Your task to perform on an android device: delete location history Image 0: 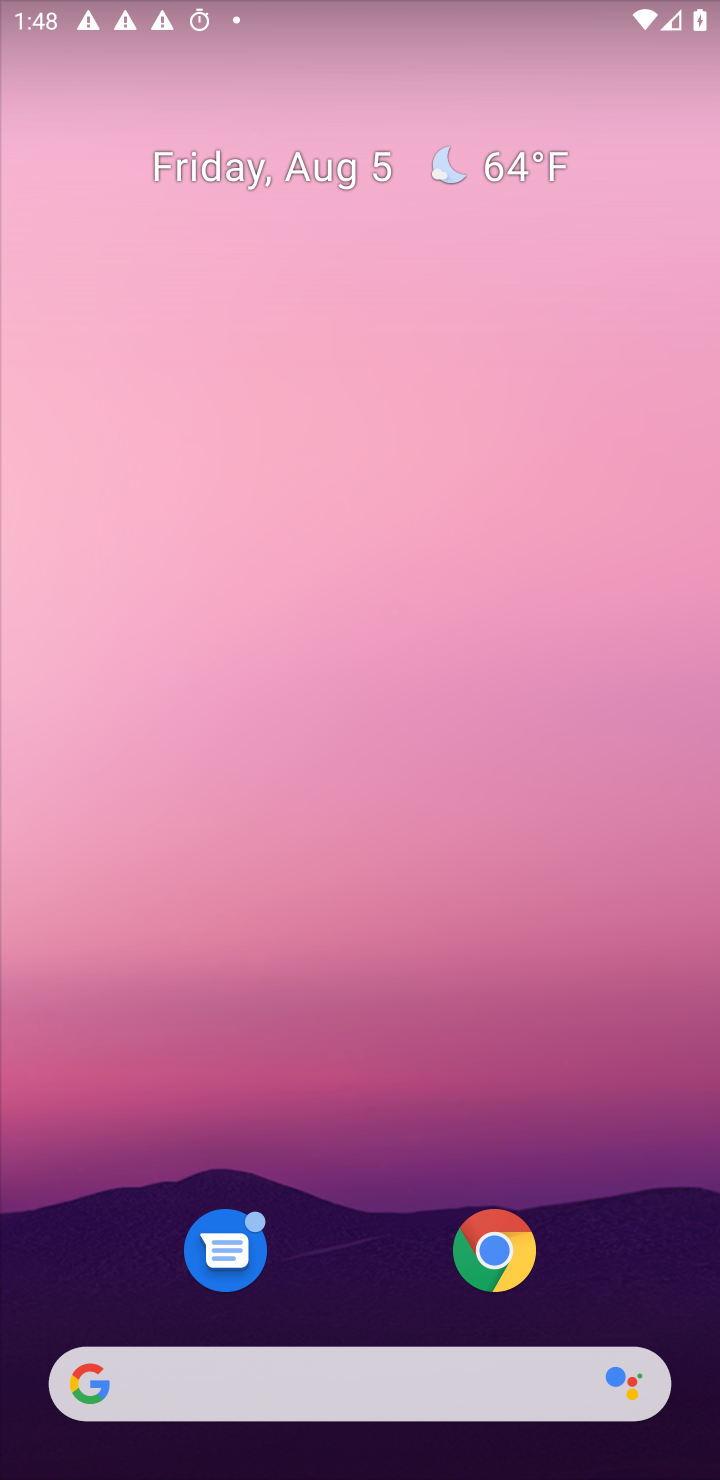
Step 0: click (347, 443)
Your task to perform on an android device: delete location history Image 1: 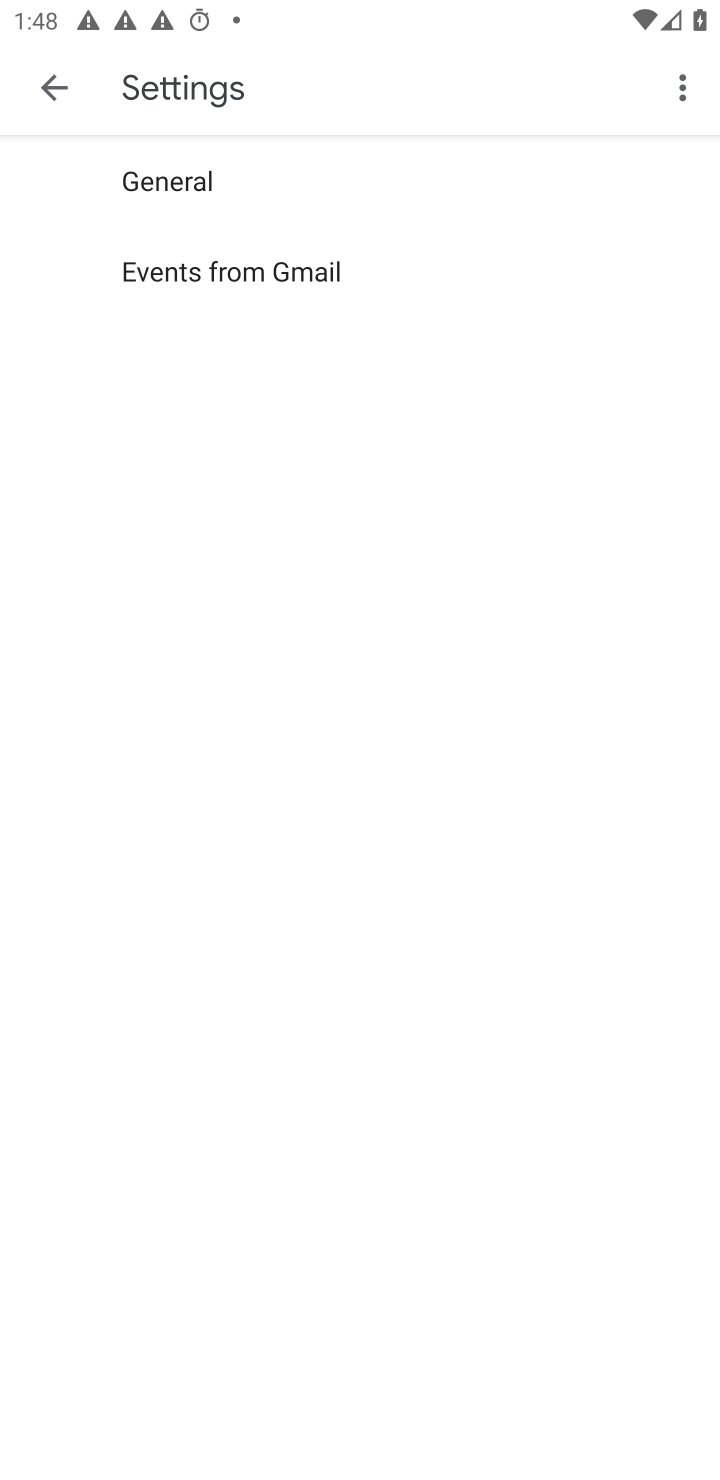
Step 1: click (435, 420)
Your task to perform on an android device: delete location history Image 2: 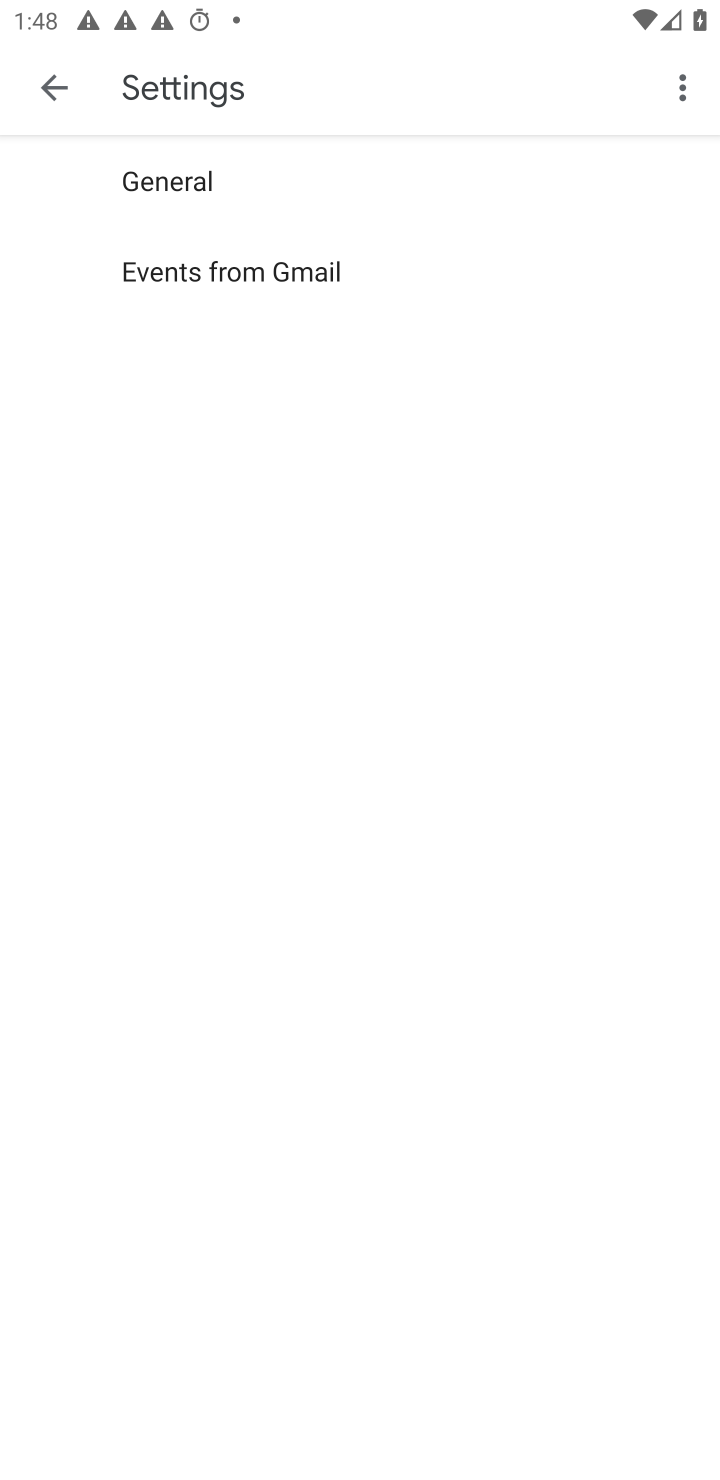
Step 2: press home button
Your task to perform on an android device: delete location history Image 3: 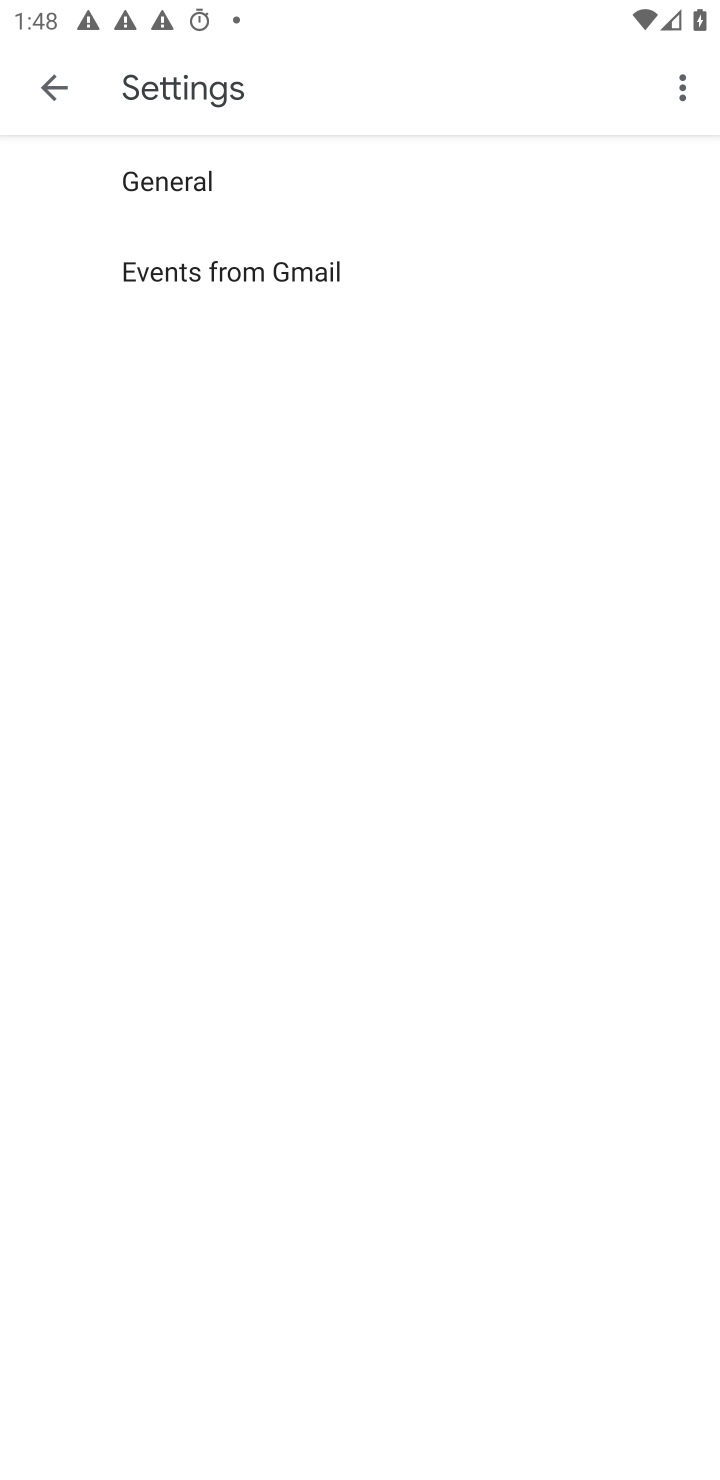
Step 3: press home button
Your task to perform on an android device: delete location history Image 4: 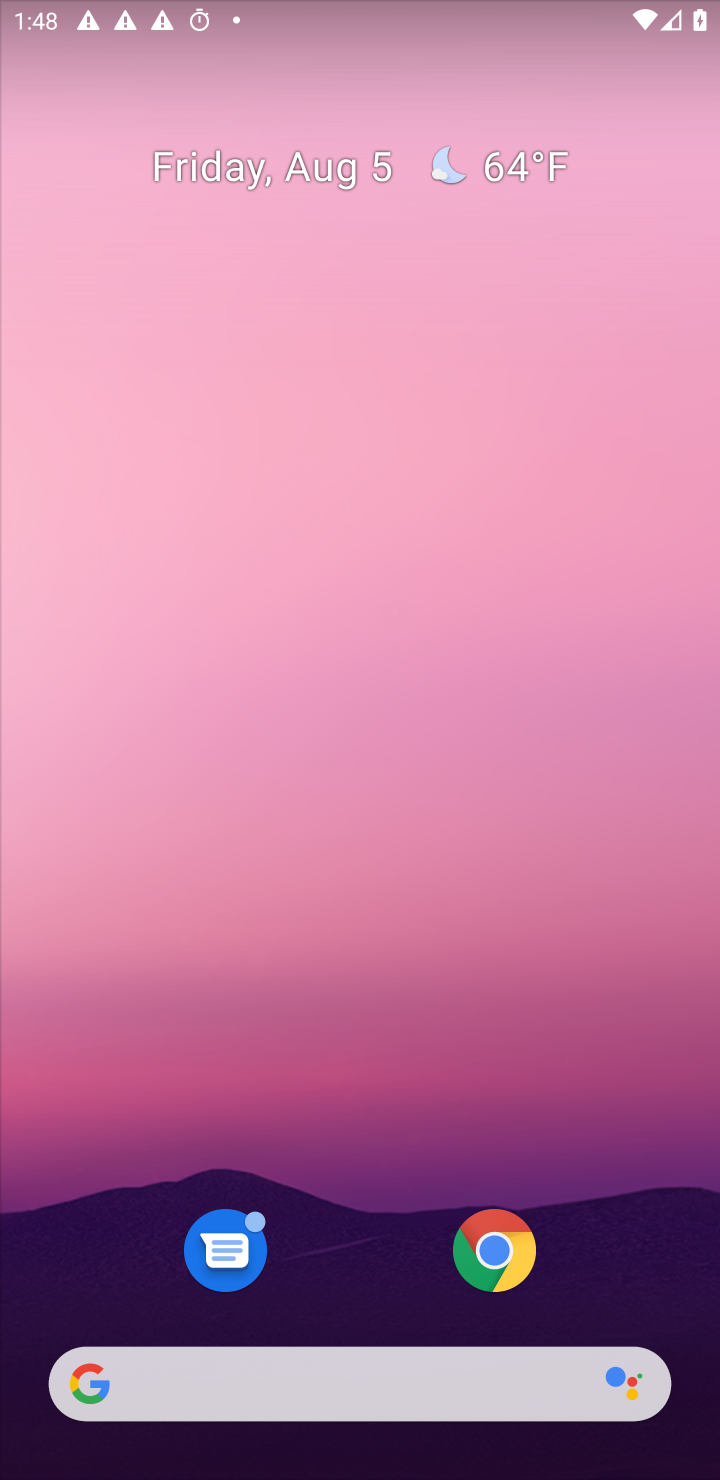
Step 4: drag from (345, 1202) to (445, 527)
Your task to perform on an android device: delete location history Image 5: 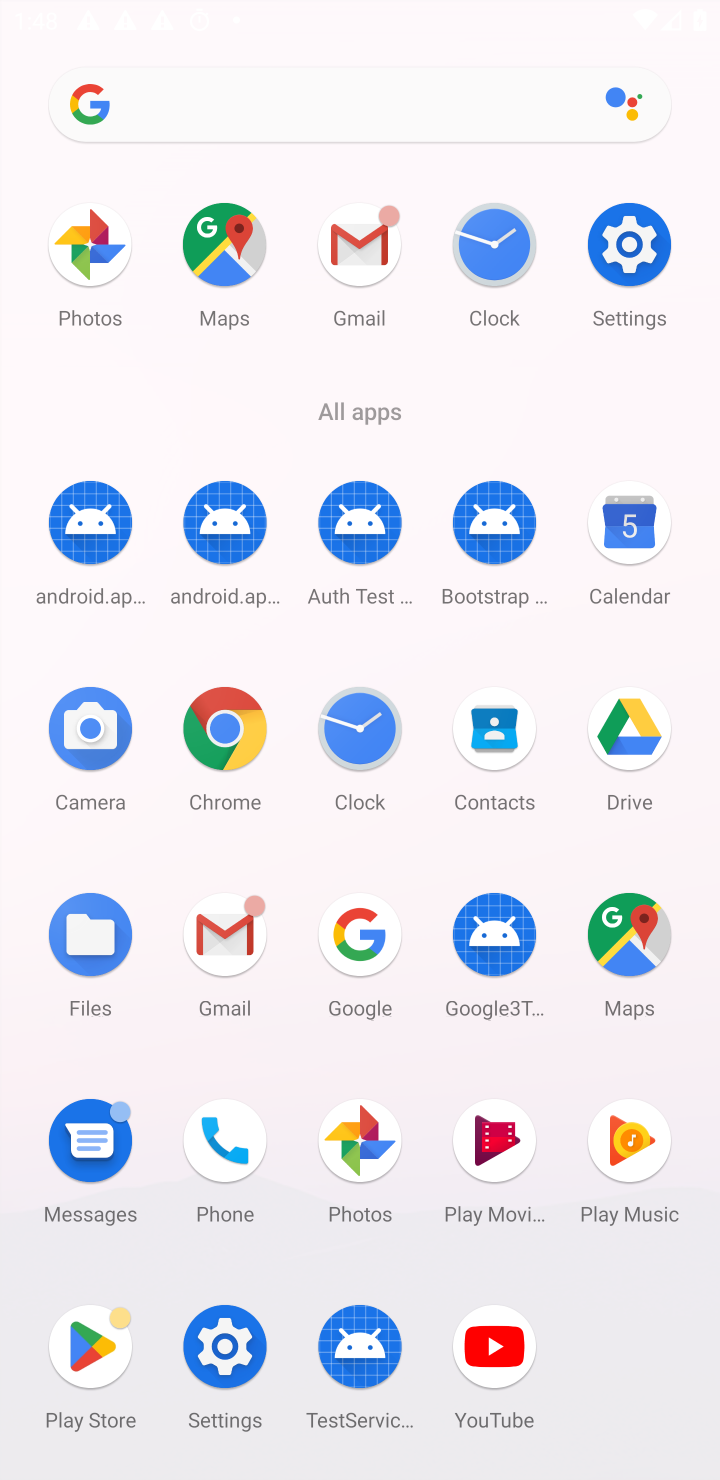
Step 5: click (626, 217)
Your task to perform on an android device: delete location history Image 6: 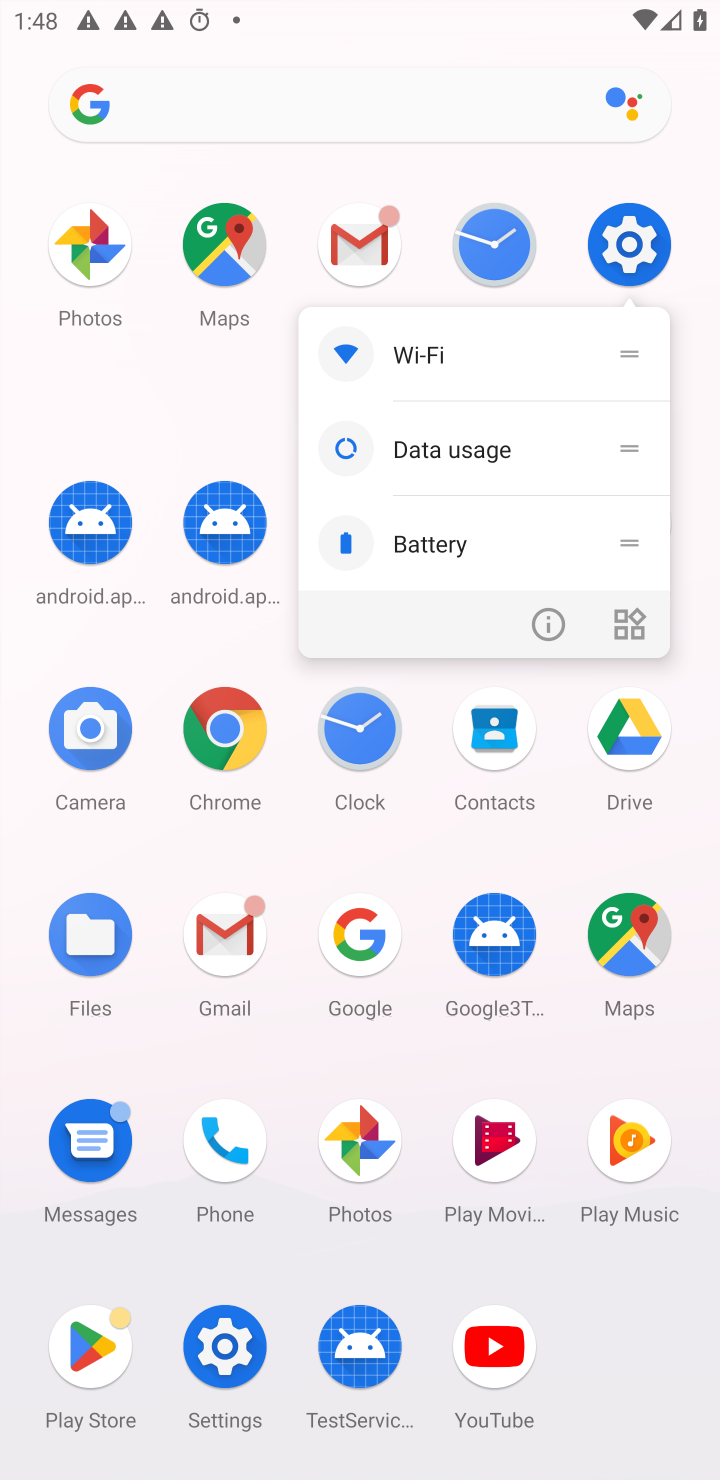
Step 6: click (542, 625)
Your task to perform on an android device: delete location history Image 7: 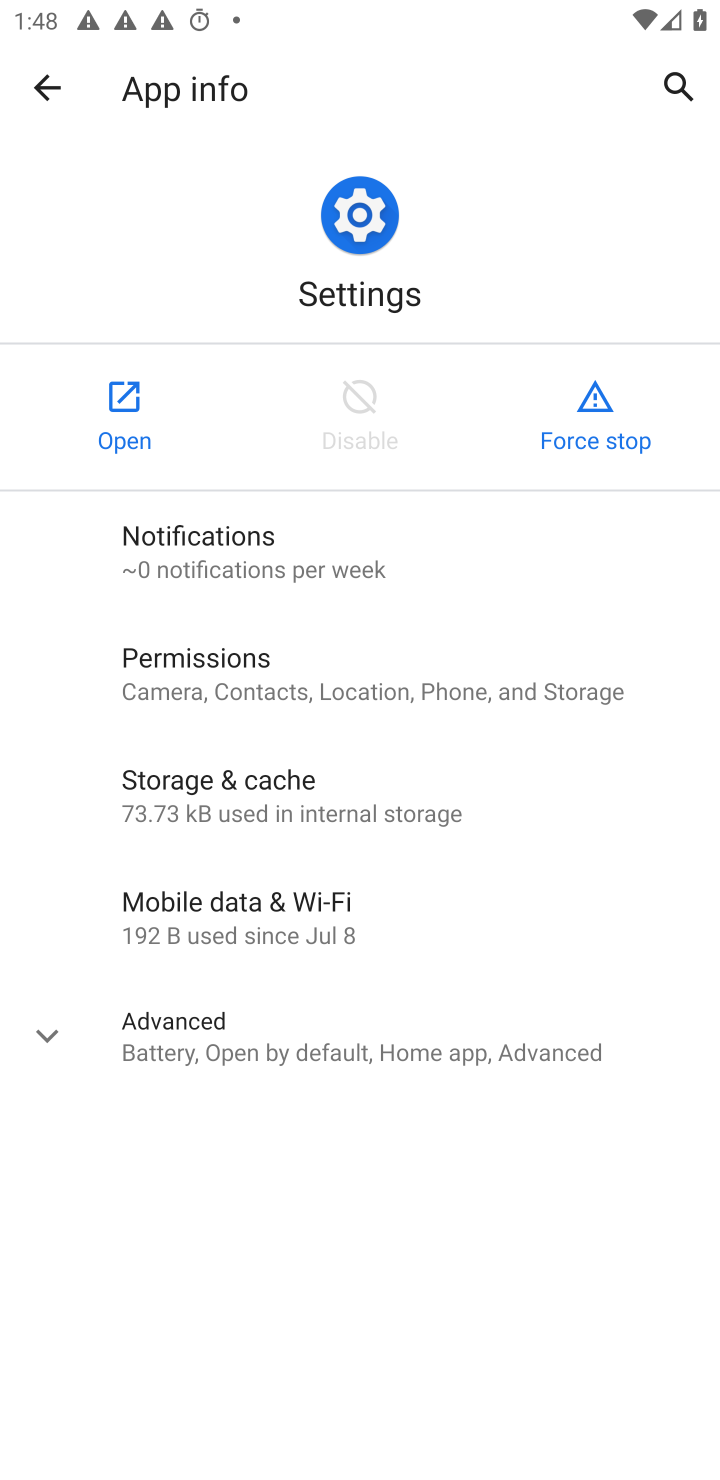
Step 7: click (104, 427)
Your task to perform on an android device: delete location history Image 8: 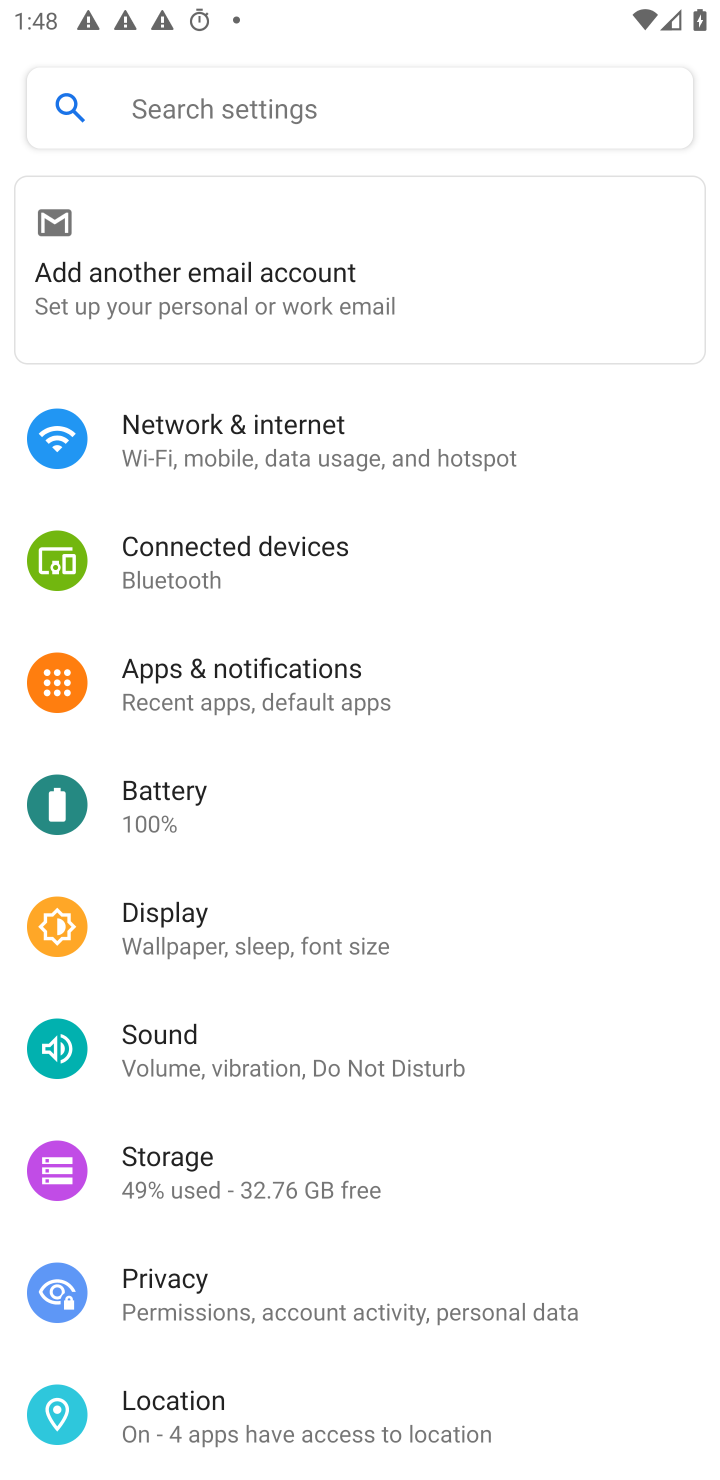
Step 8: click (227, 1401)
Your task to perform on an android device: delete location history Image 9: 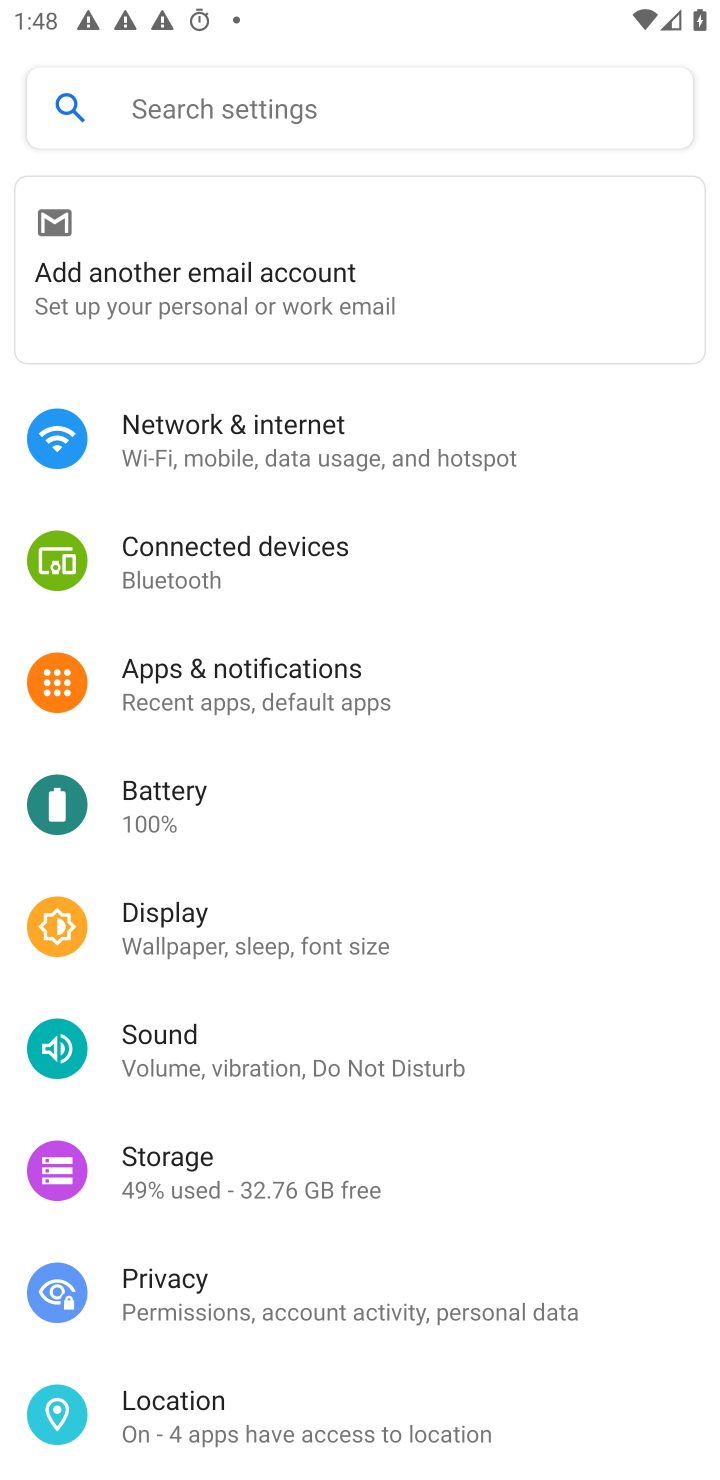
Step 9: drag from (234, 1344) to (426, 539)
Your task to perform on an android device: delete location history Image 10: 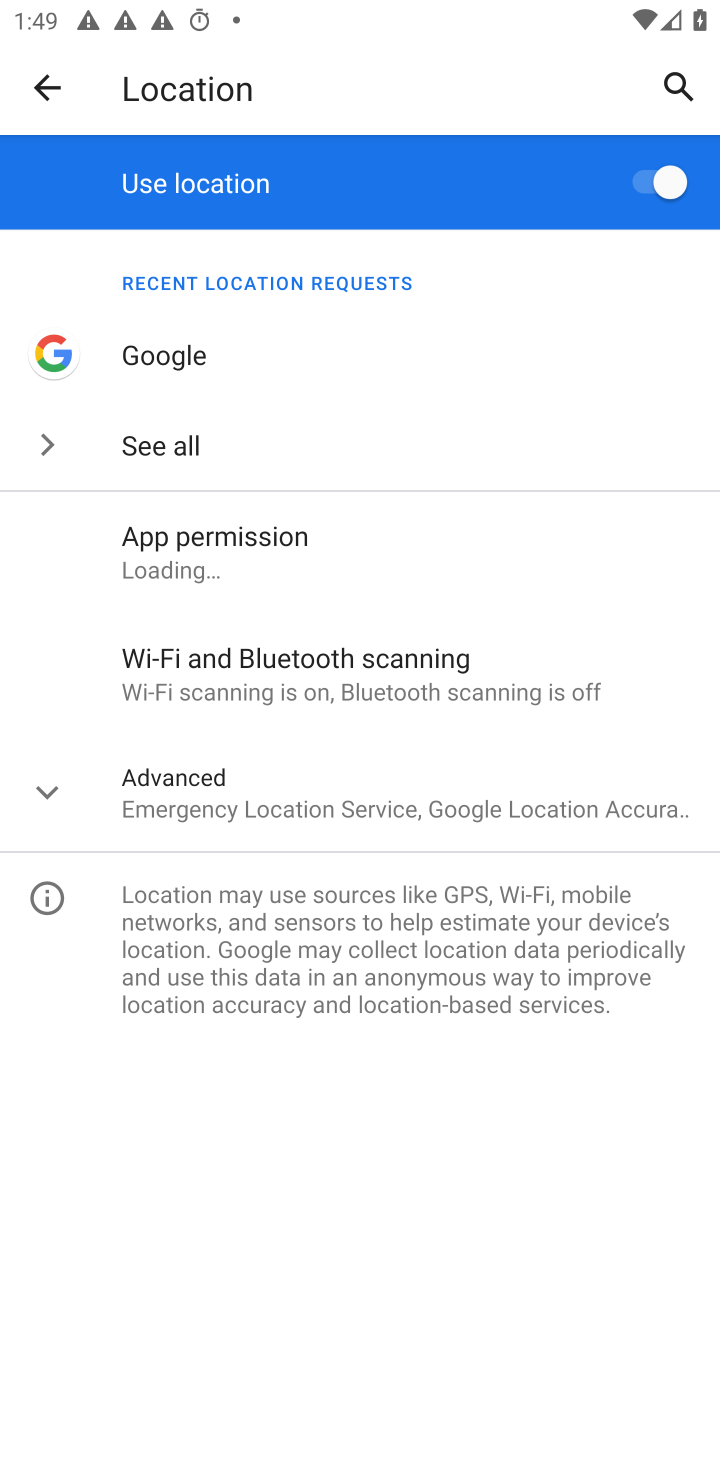
Step 10: click (203, 811)
Your task to perform on an android device: delete location history Image 11: 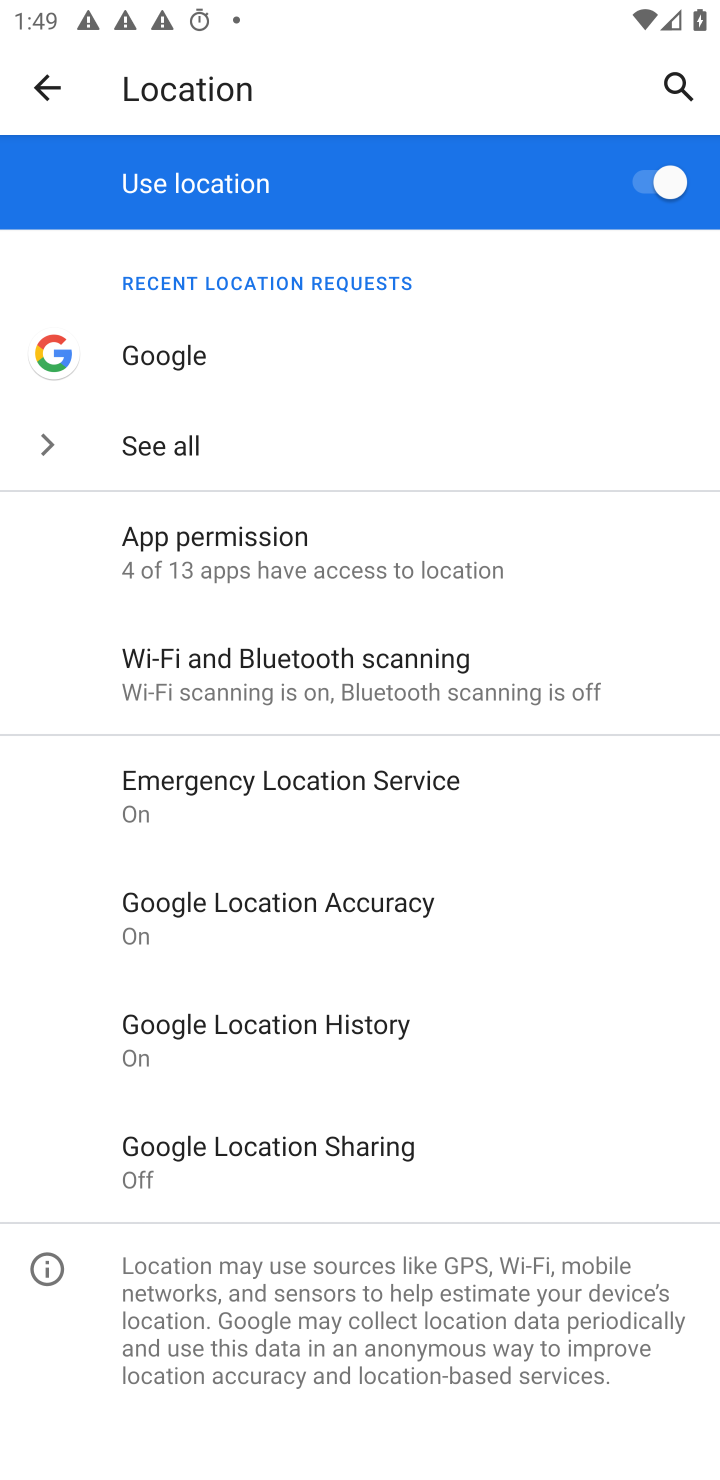
Step 11: click (305, 1021)
Your task to perform on an android device: delete location history Image 12: 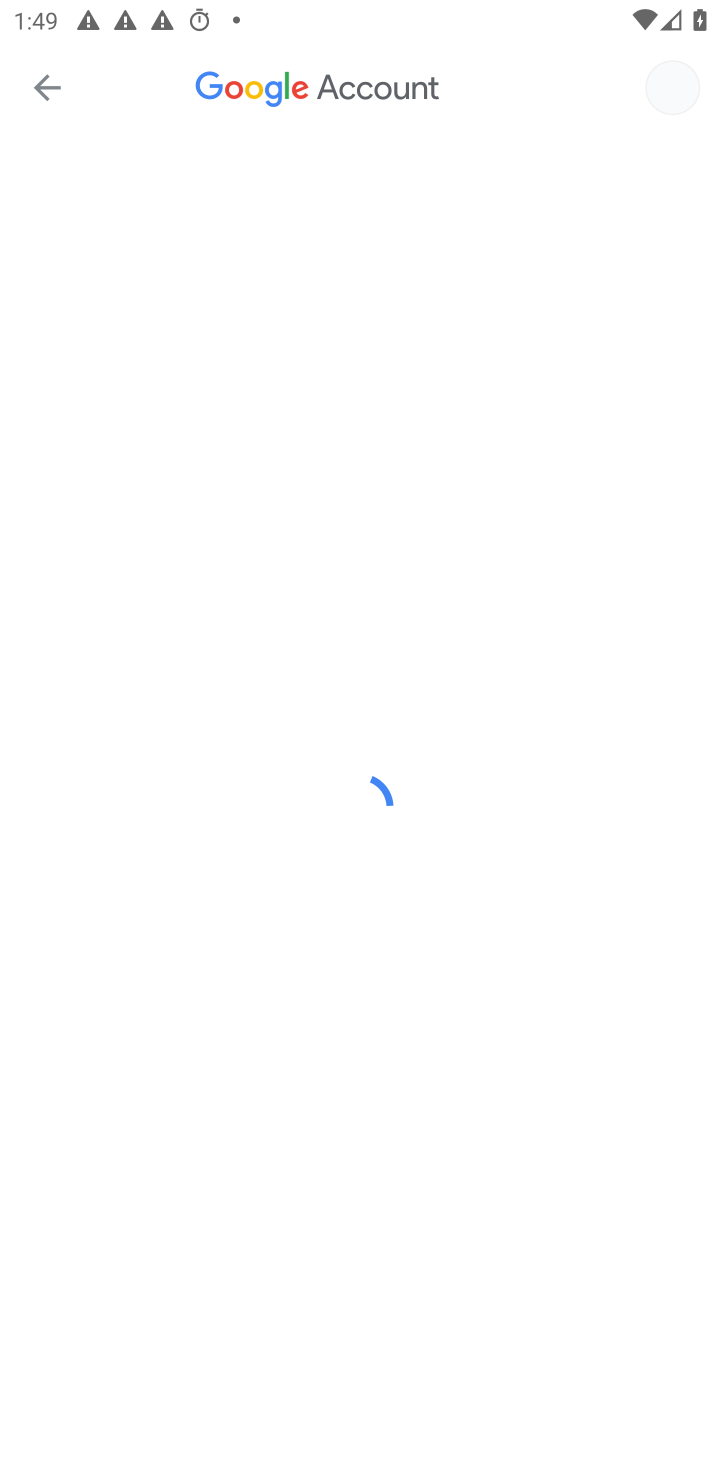
Step 12: drag from (428, 855) to (287, 129)
Your task to perform on an android device: delete location history Image 13: 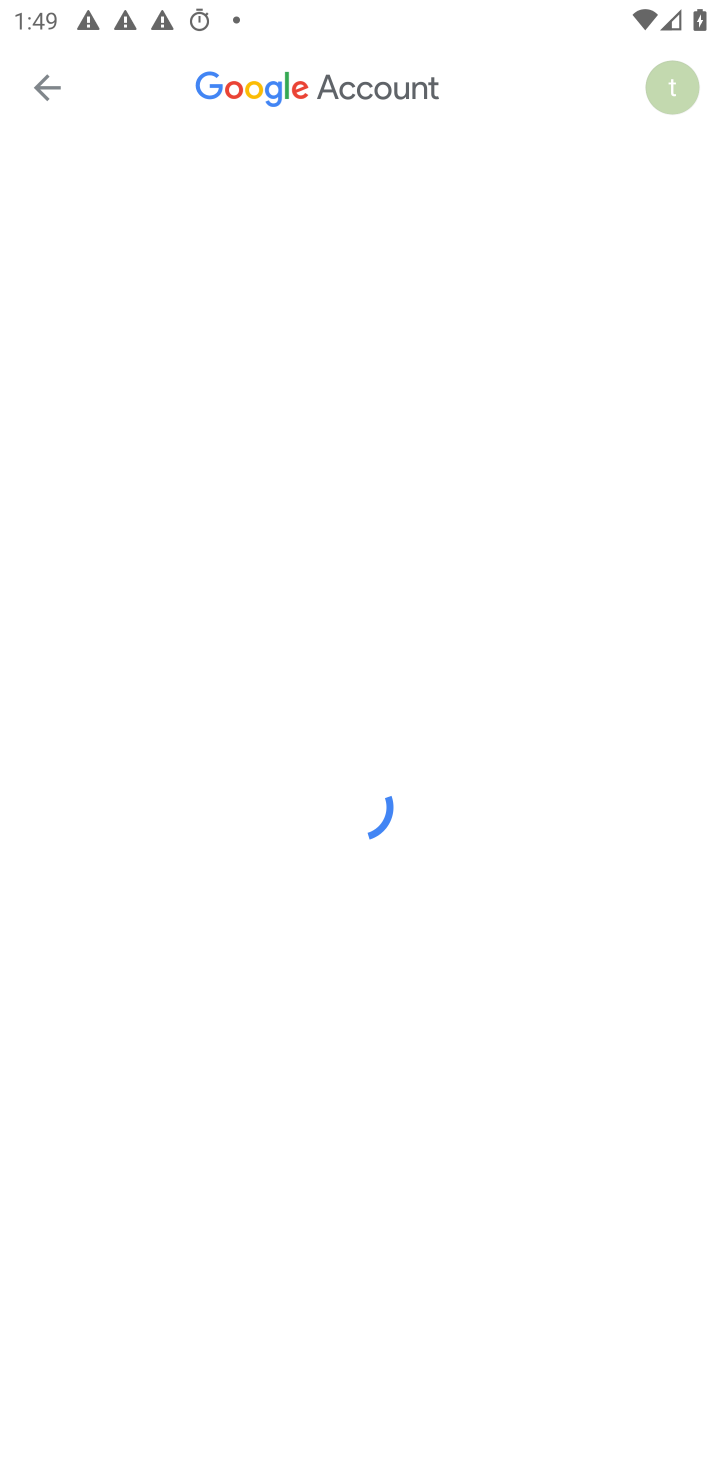
Step 13: drag from (310, 417) to (402, 1064)
Your task to perform on an android device: delete location history Image 14: 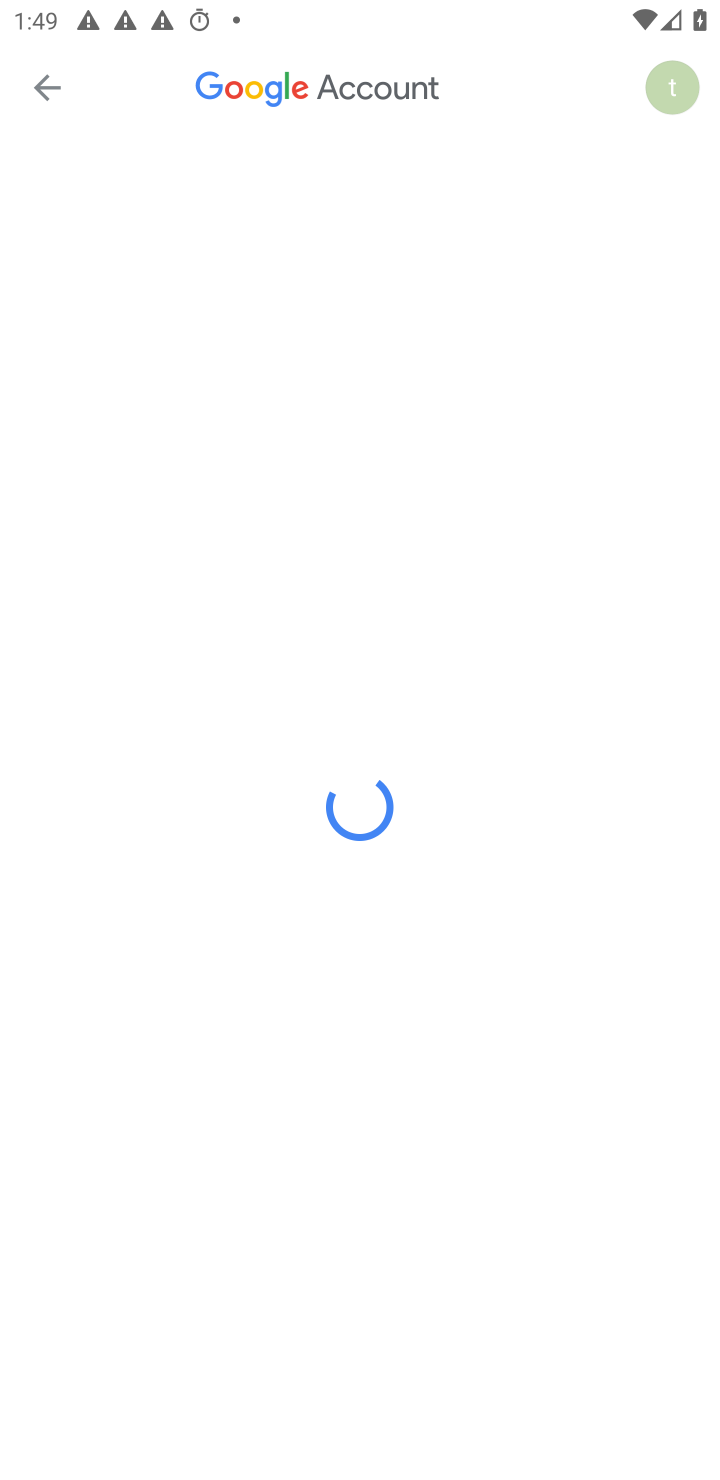
Step 14: drag from (442, 933) to (471, 626)
Your task to perform on an android device: delete location history Image 15: 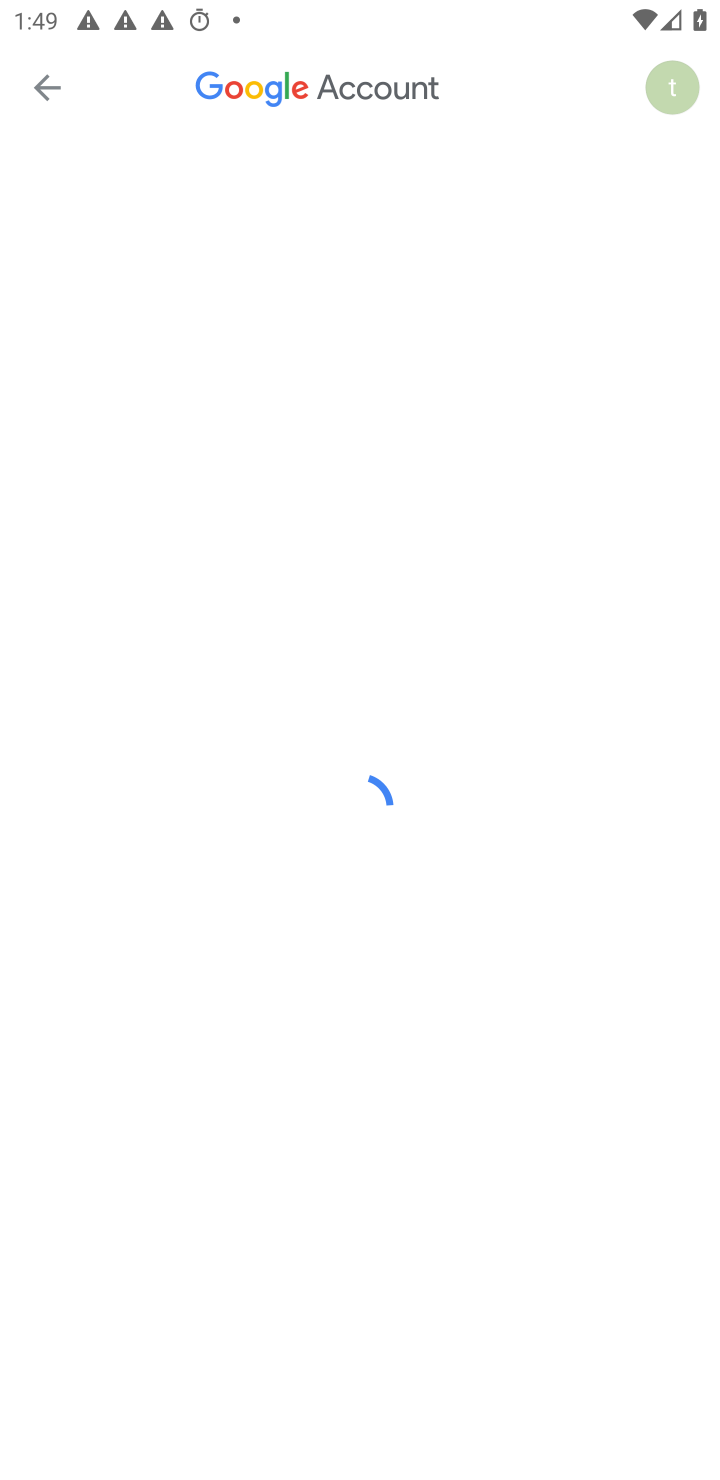
Step 15: drag from (453, 633) to (496, 950)
Your task to perform on an android device: delete location history Image 16: 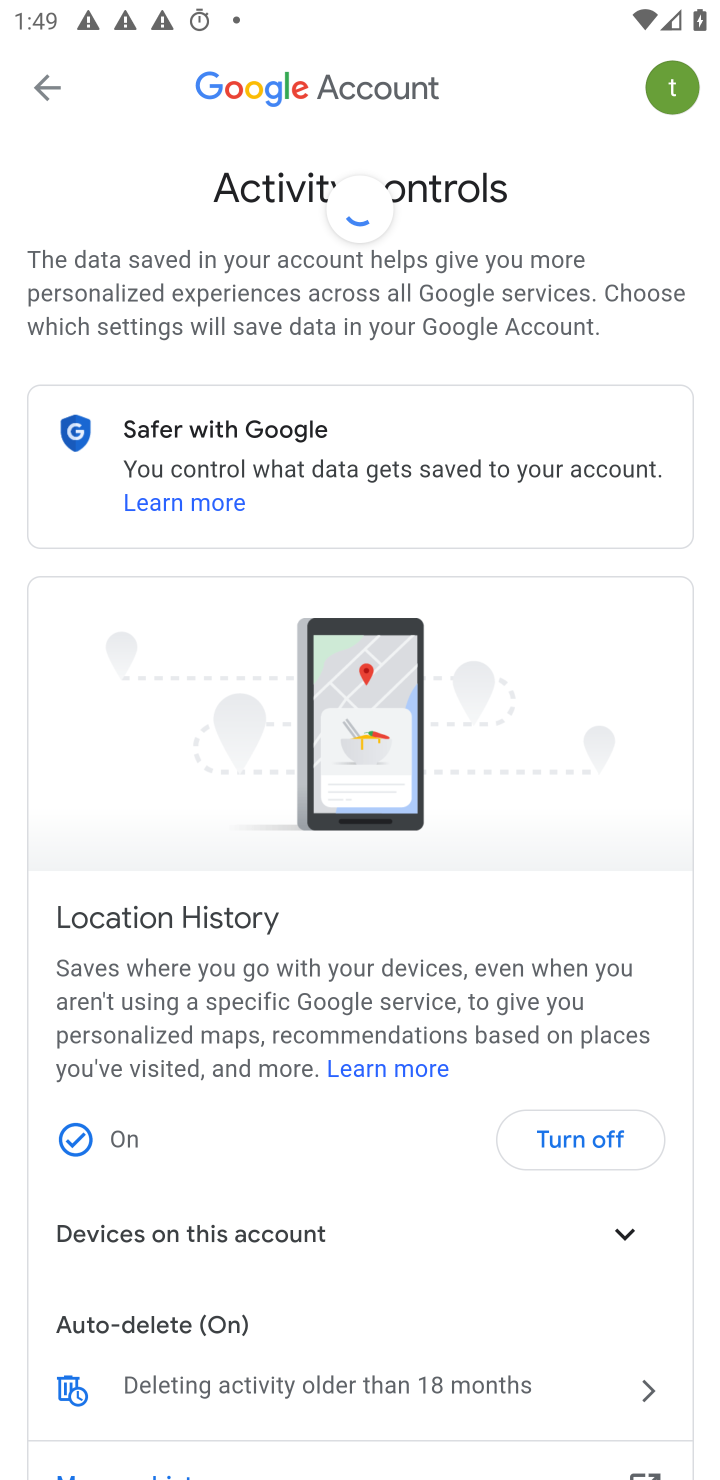
Step 16: drag from (358, 1112) to (476, 576)
Your task to perform on an android device: delete location history Image 17: 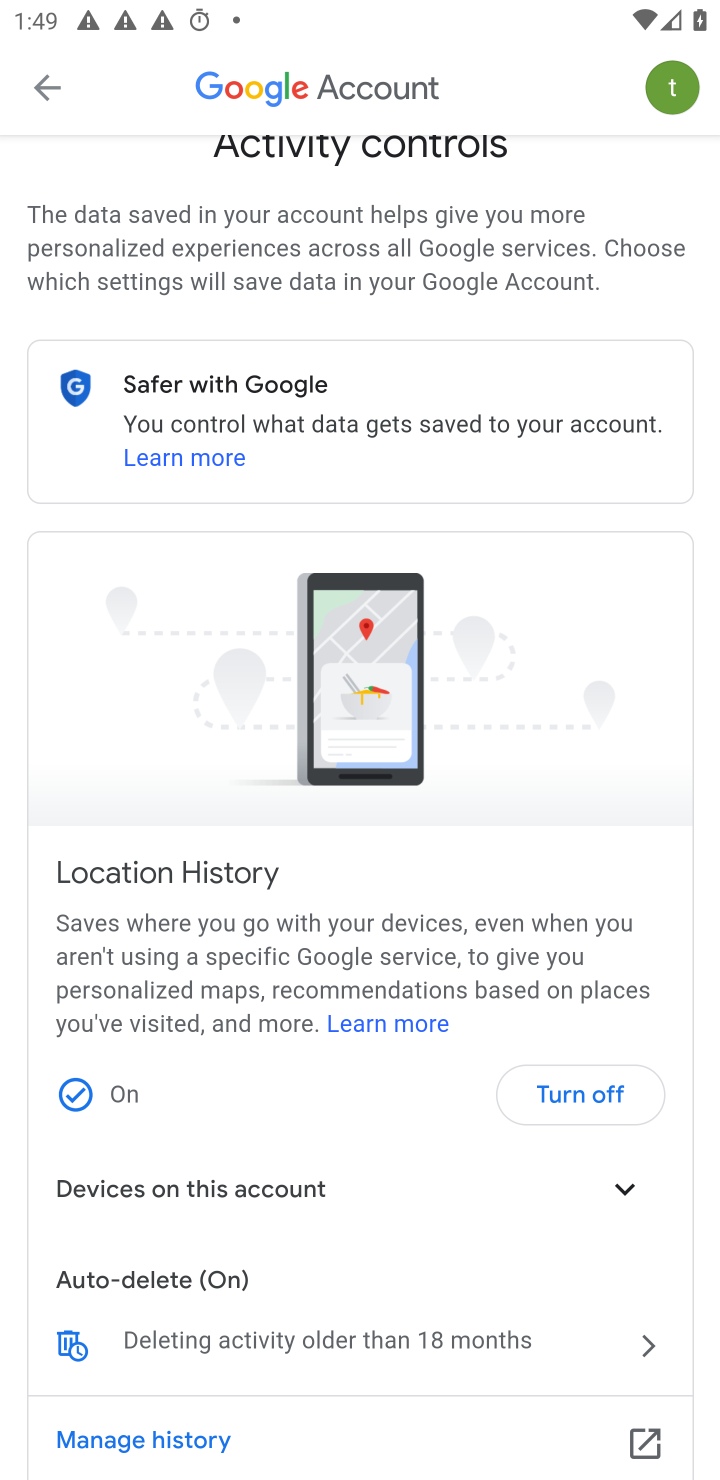
Step 17: click (62, 1344)
Your task to perform on an android device: delete location history Image 18: 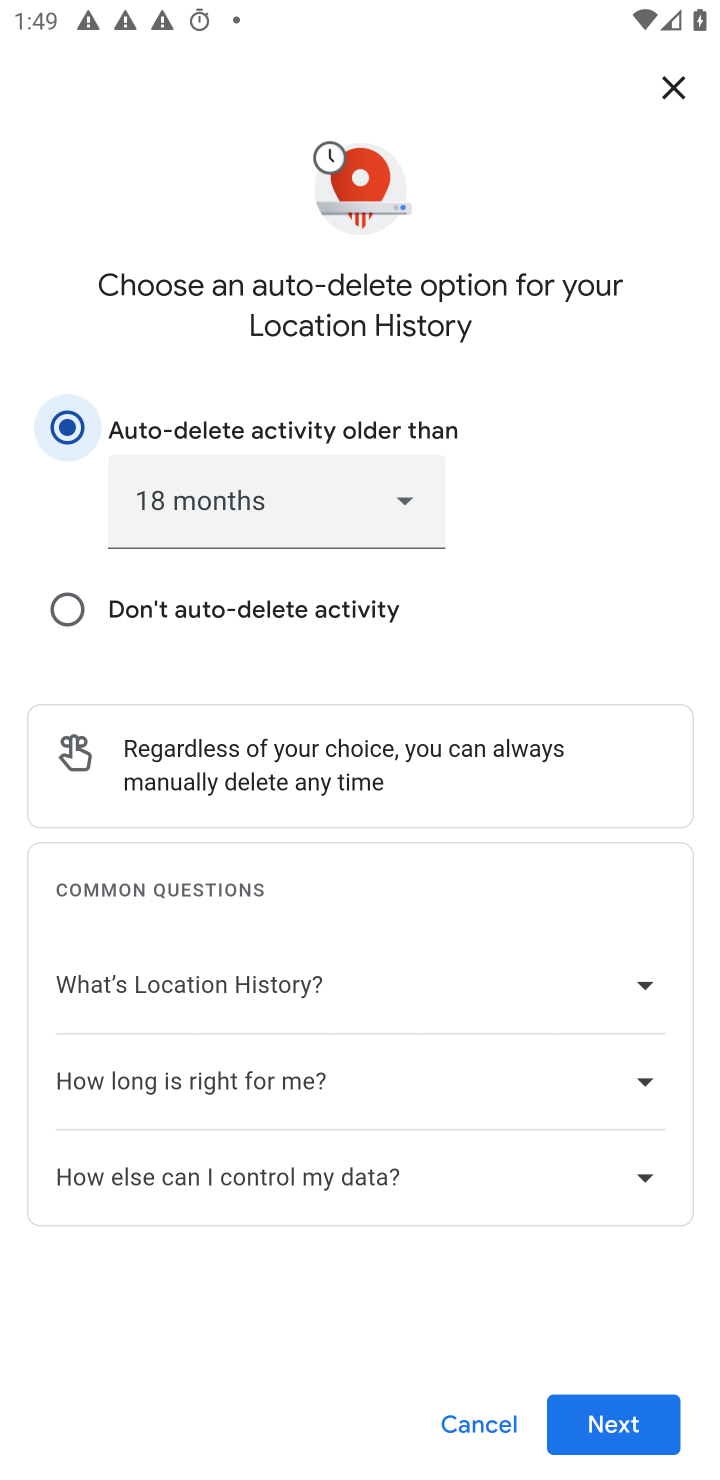
Step 18: drag from (356, 1314) to (368, 645)
Your task to perform on an android device: delete location history Image 19: 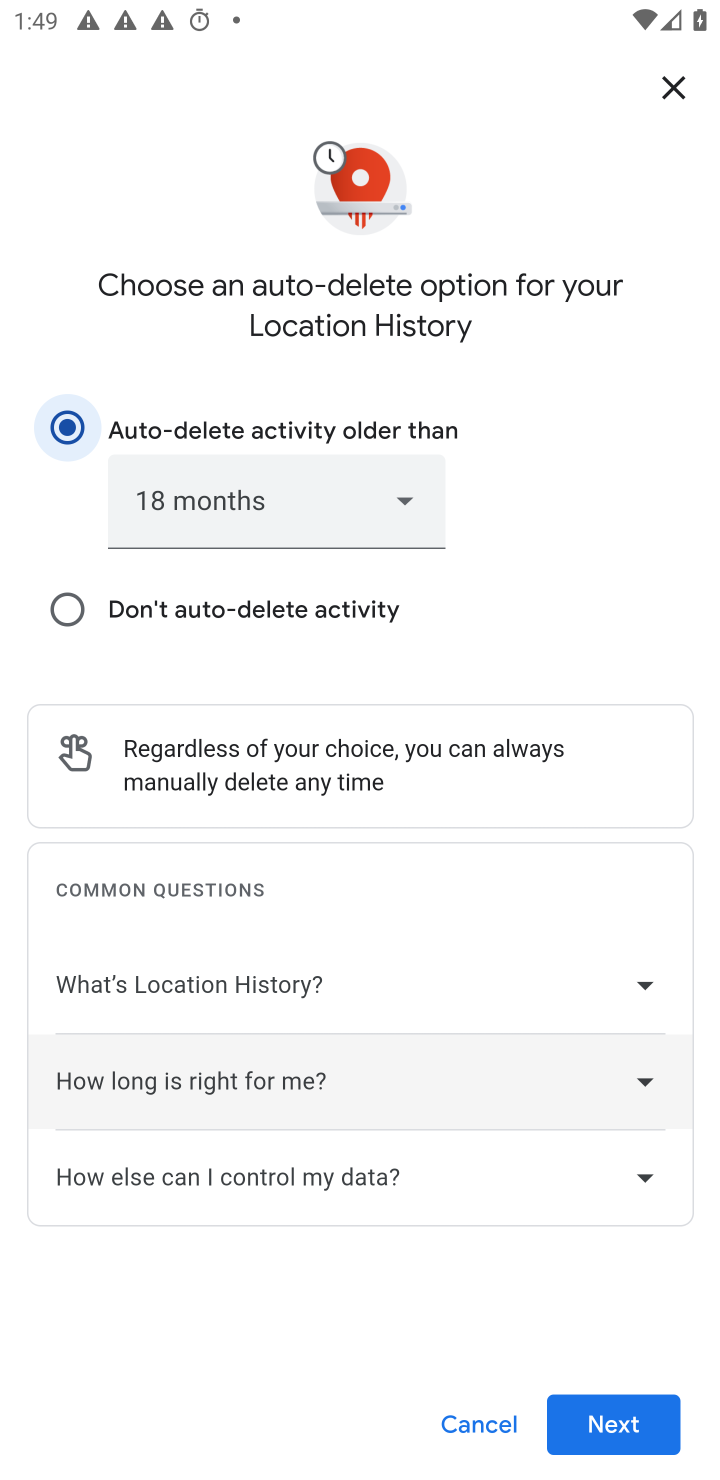
Step 19: click (588, 1432)
Your task to perform on an android device: delete location history Image 20: 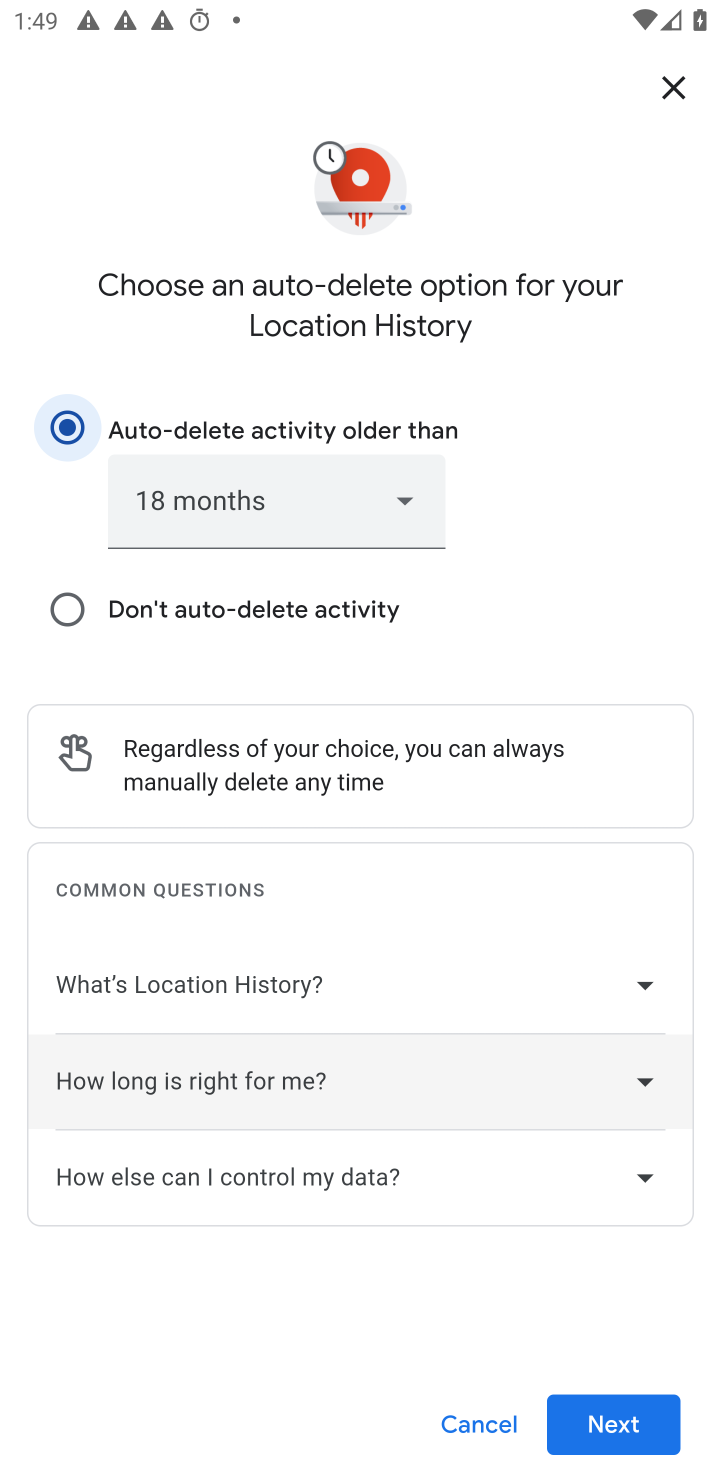
Step 20: click (588, 1430)
Your task to perform on an android device: delete location history Image 21: 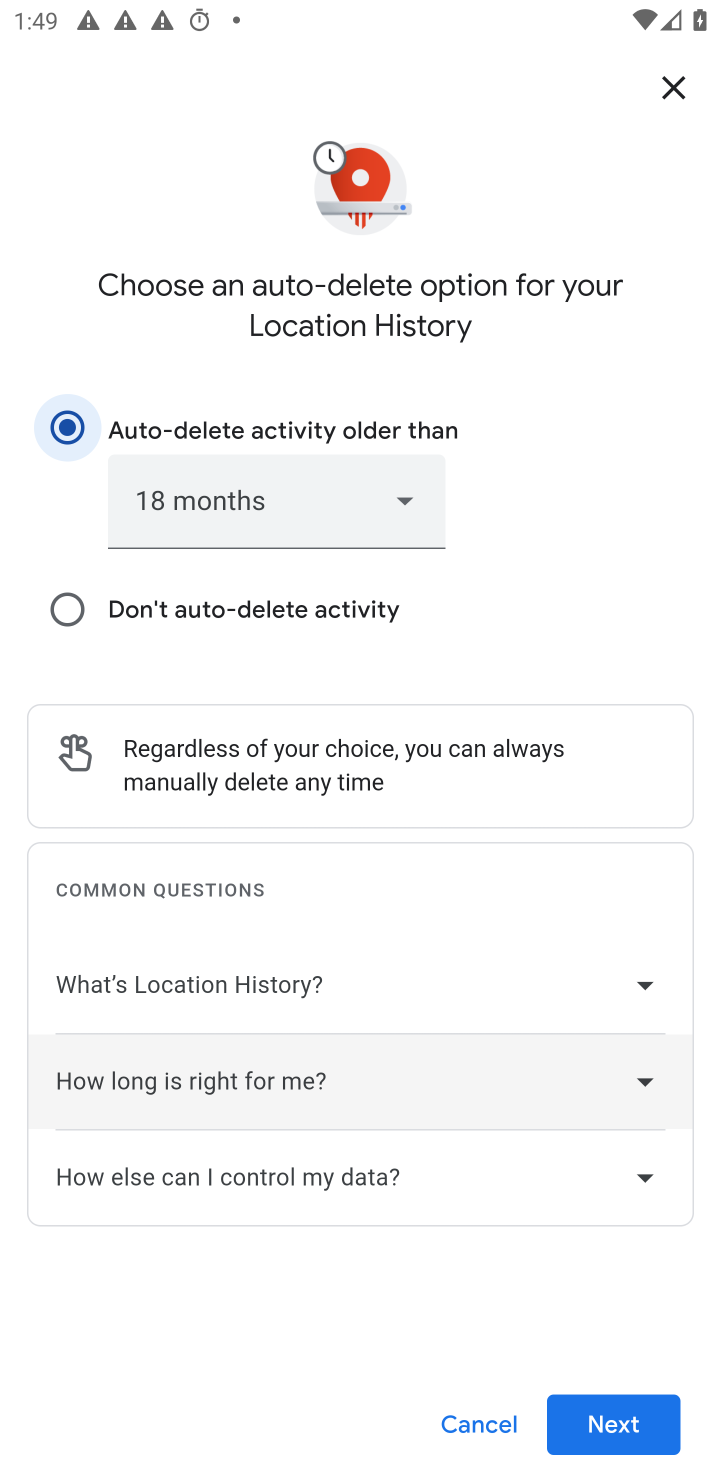
Step 21: click (588, 1430)
Your task to perform on an android device: delete location history Image 22: 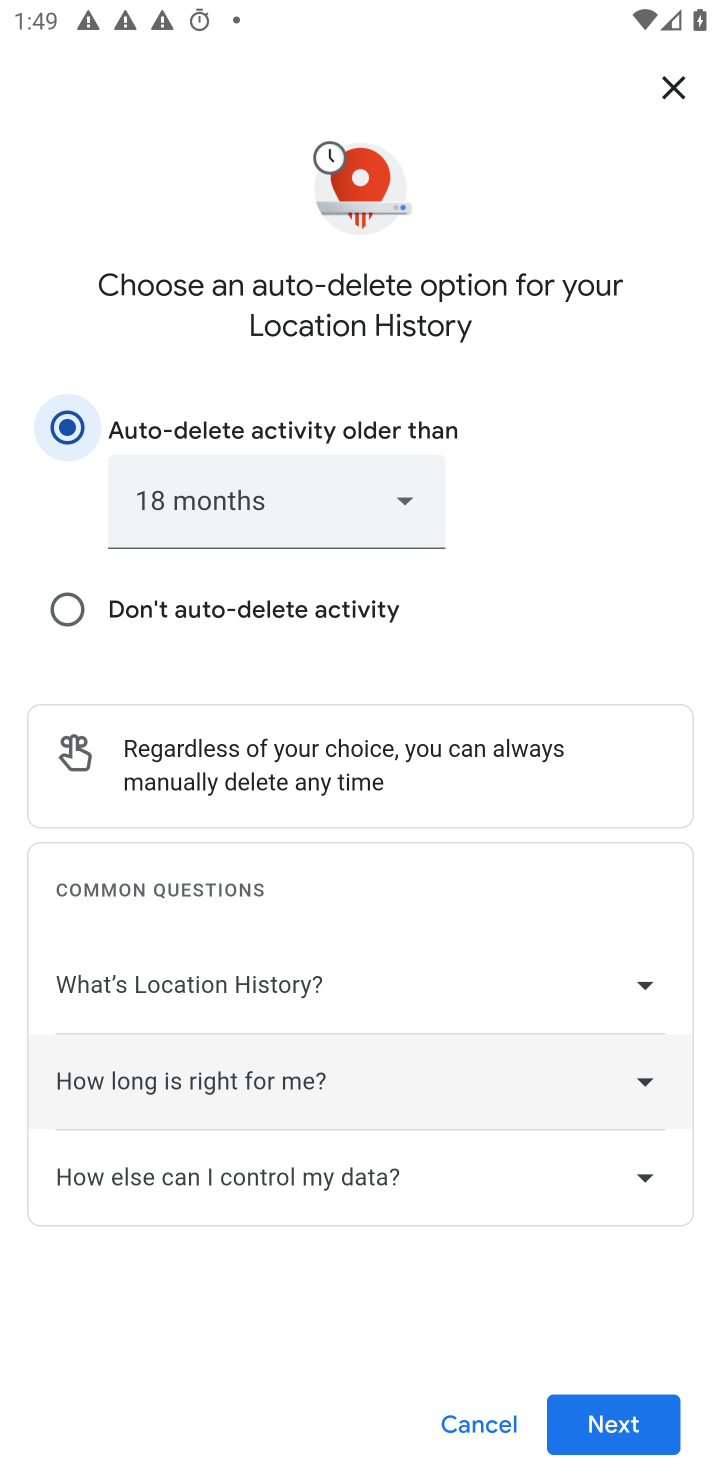
Step 22: click (597, 1428)
Your task to perform on an android device: delete location history Image 23: 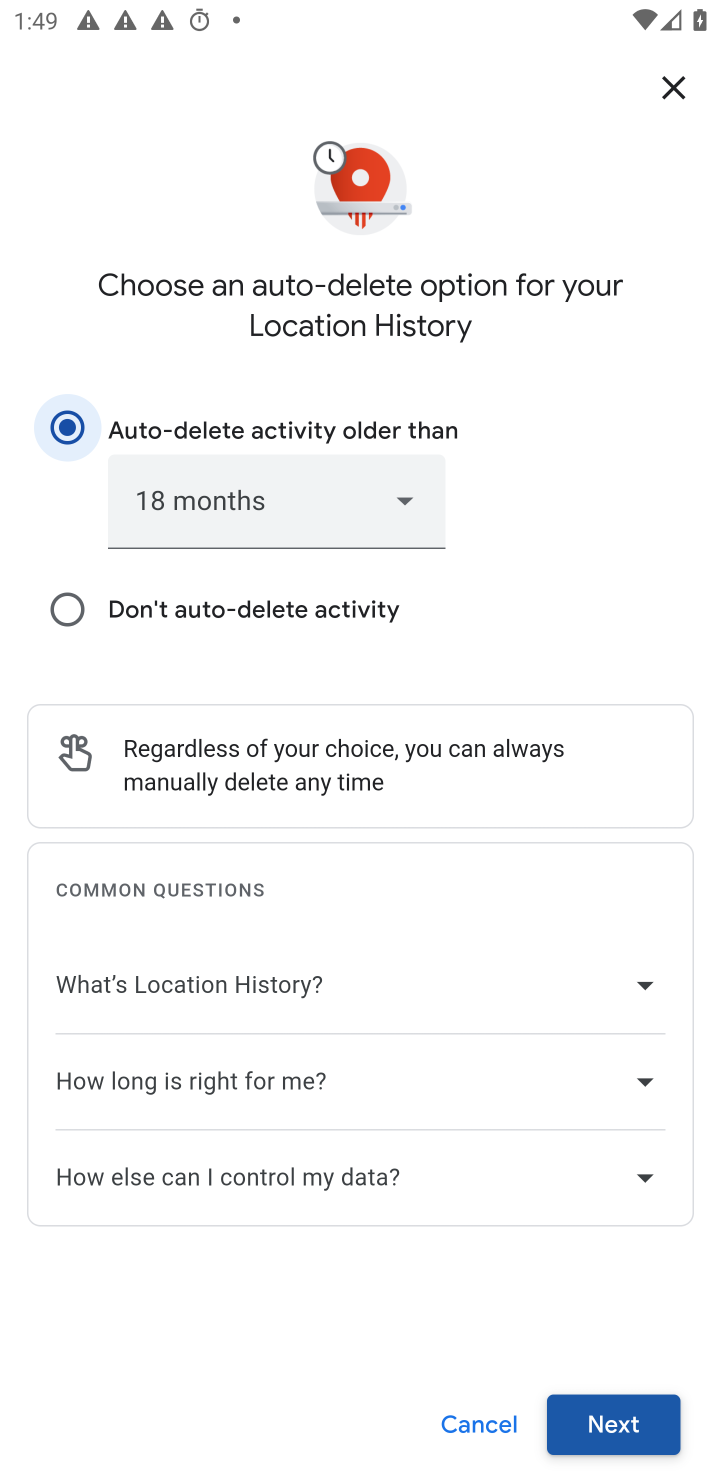
Step 23: click (622, 1421)
Your task to perform on an android device: delete location history Image 24: 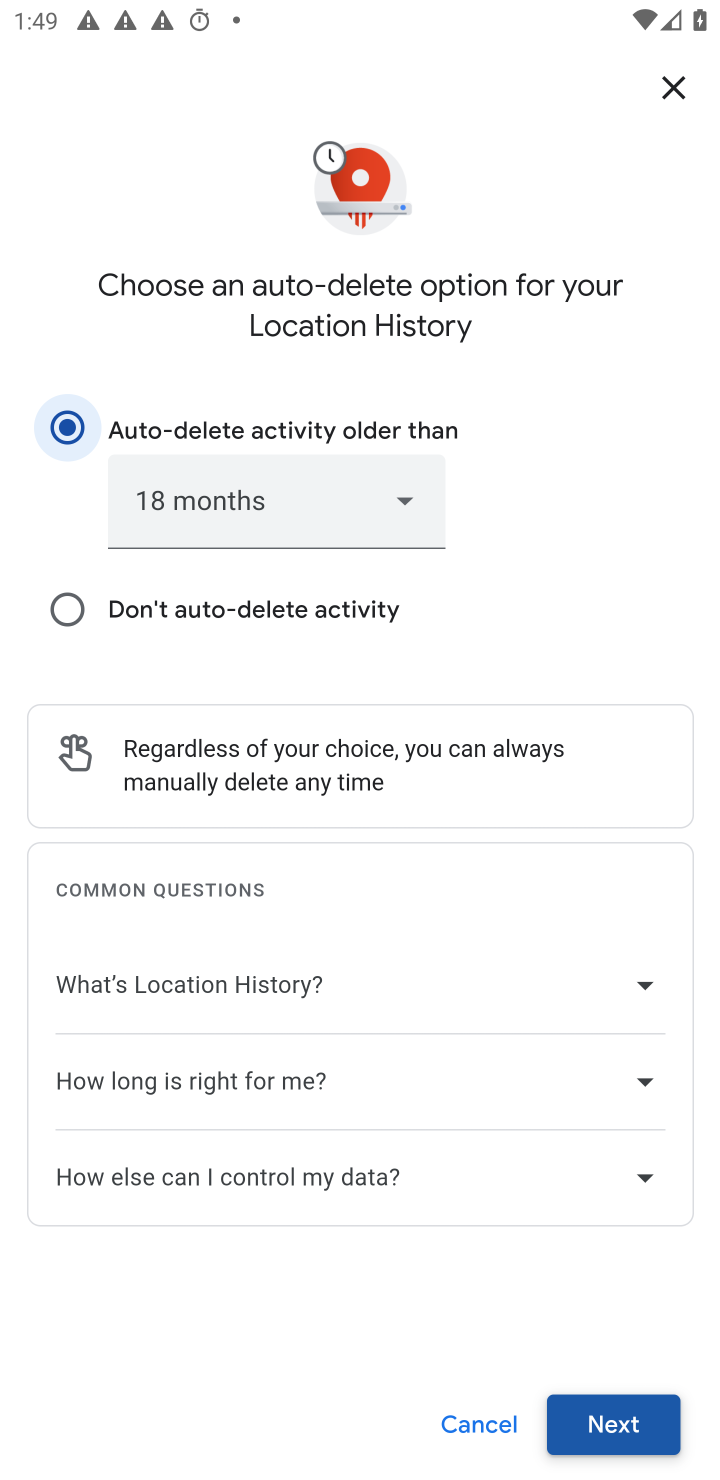
Step 24: click (618, 1428)
Your task to perform on an android device: delete location history Image 25: 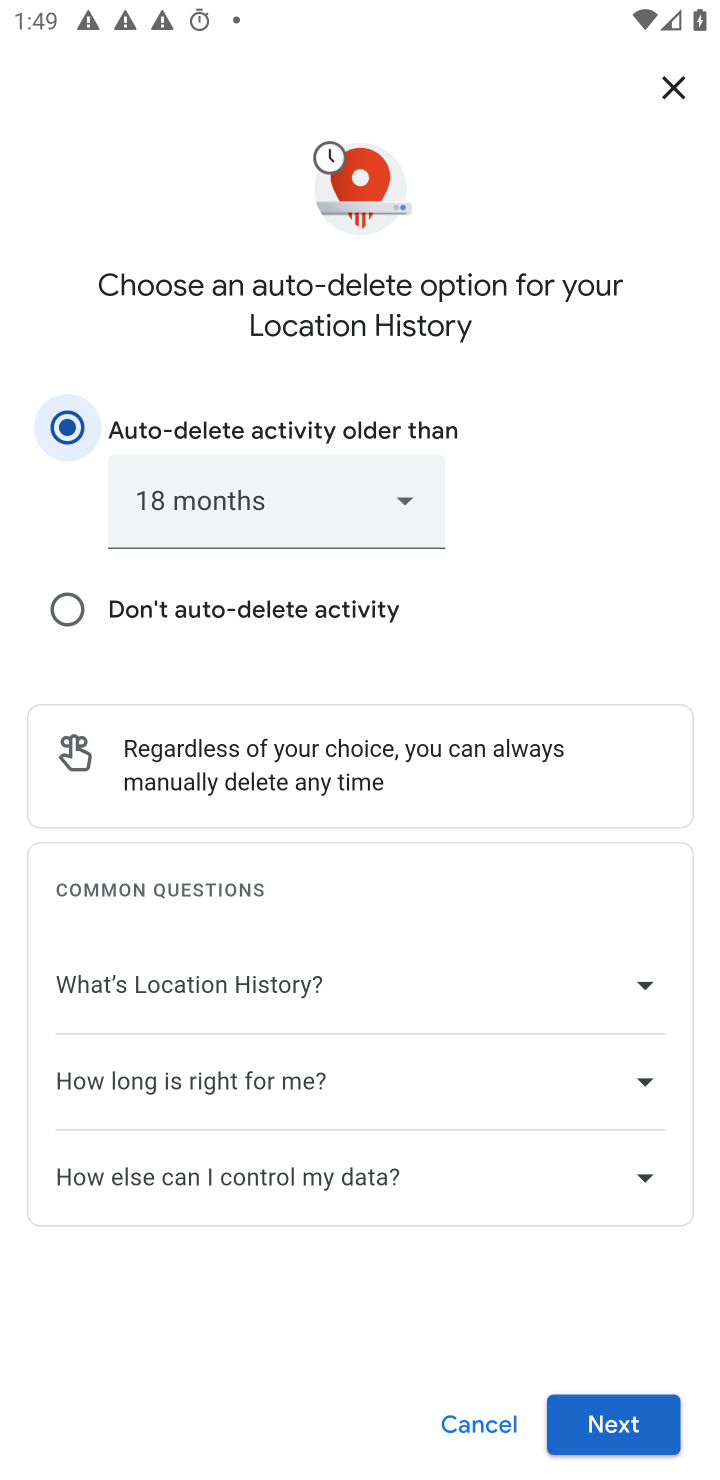
Step 25: click (604, 1443)
Your task to perform on an android device: delete location history Image 26: 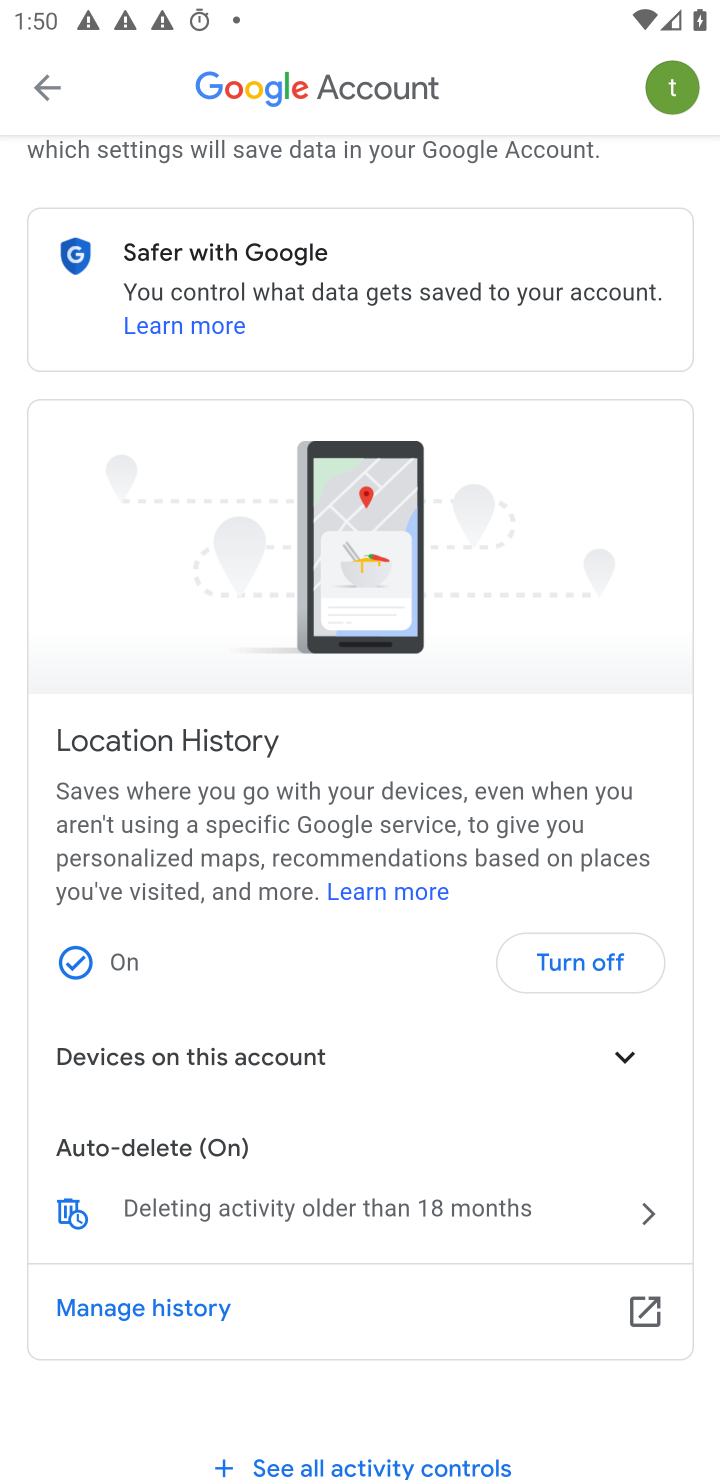
Step 26: task complete